Your task to perform on an android device: clear all cookies in the chrome app Image 0: 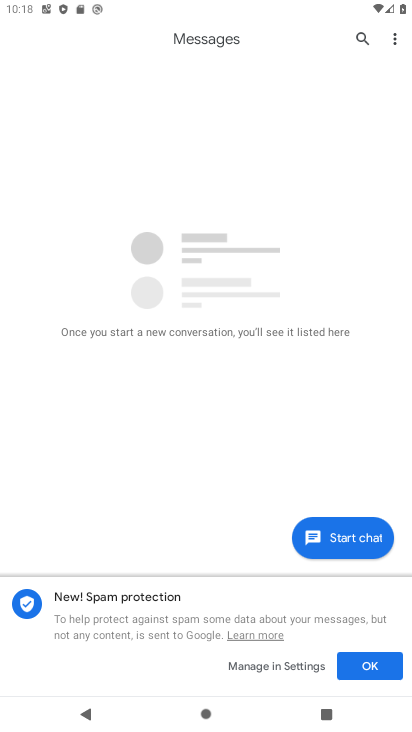
Step 0: press home button
Your task to perform on an android device: clear all cookies in the chrome app Image 1: 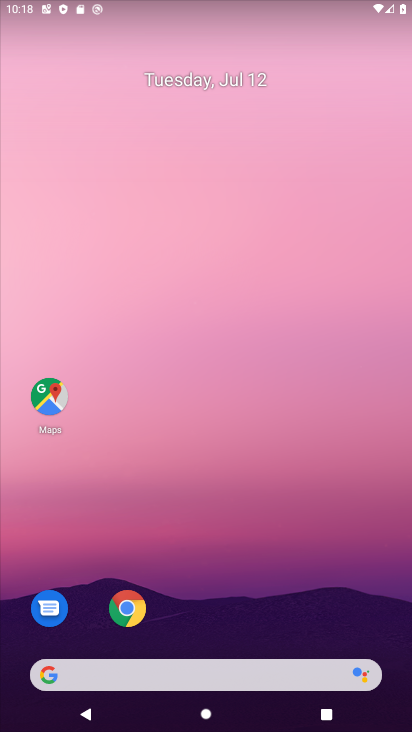
Step 1: click (125, 611)
Your task to perform on an android device: clear all cookies in the chrome app Image 2: 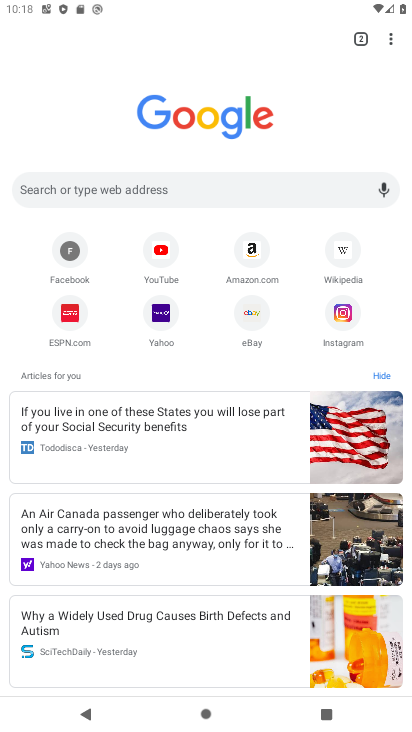
Step 2: click (392, 37)
Your task to perform on an android device: clear all cookies in the chrome app Image 3: 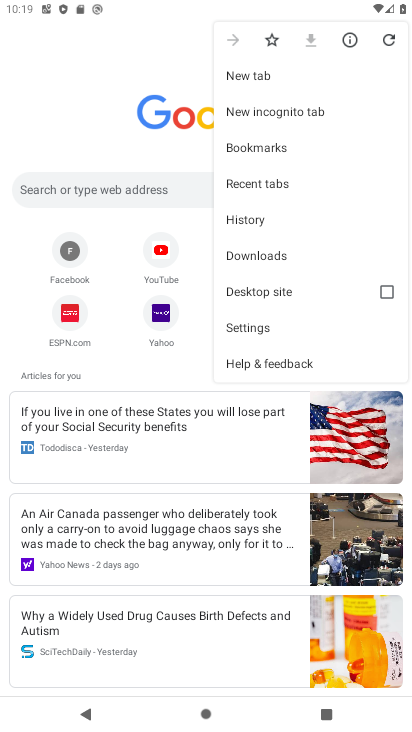
Step 3: click (248, 227)
Your task to perform on an android device: clear all cookies in the chrome app Image 4: 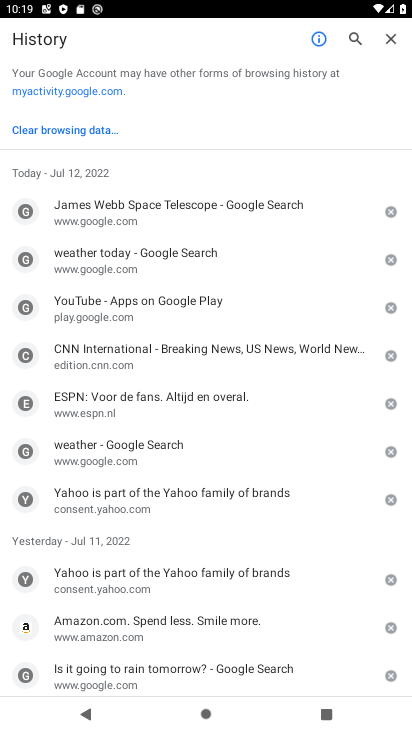
Step 4: click (45, 128)
Your task to perform on an android device: clear all cookies in the chrome app Image 5: 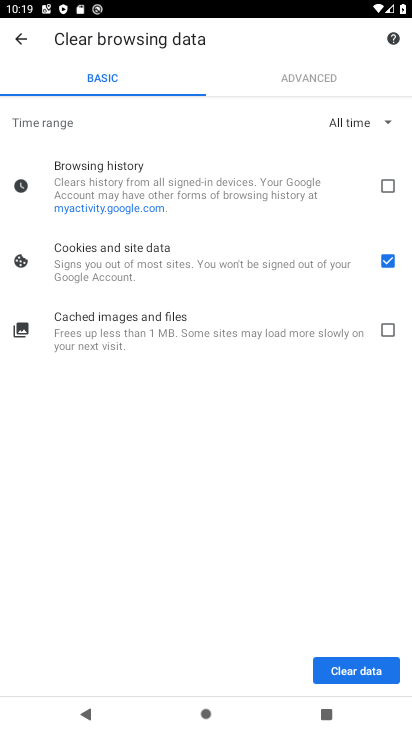
Step 5: click (387, 336)
Your task to perform on an android device: clear all cookies in the chrome app Image 6: 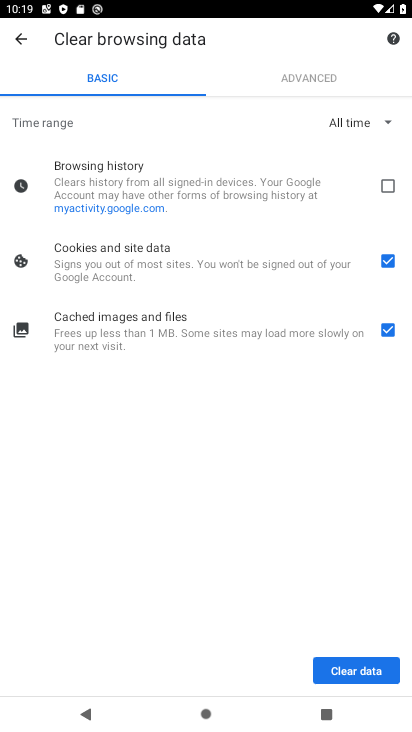
Step 6: click (392, 184)
Your task to perform on an android device: clear all cookies in the chrome app Image 7: 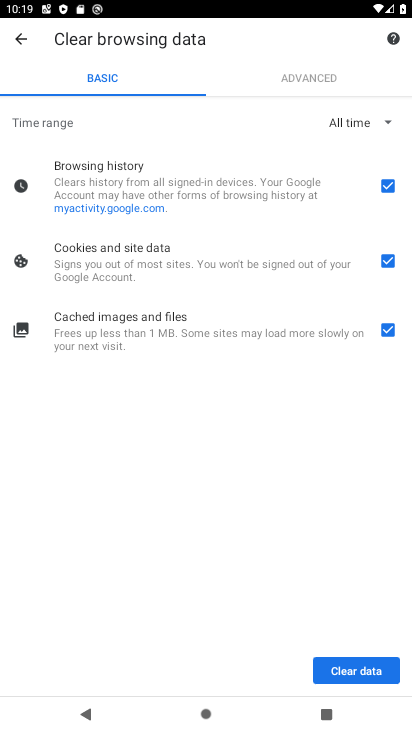
Step 7: click (352, 669)
Your task to perform on an android device: clear all cookies in the chrome app Image 8: 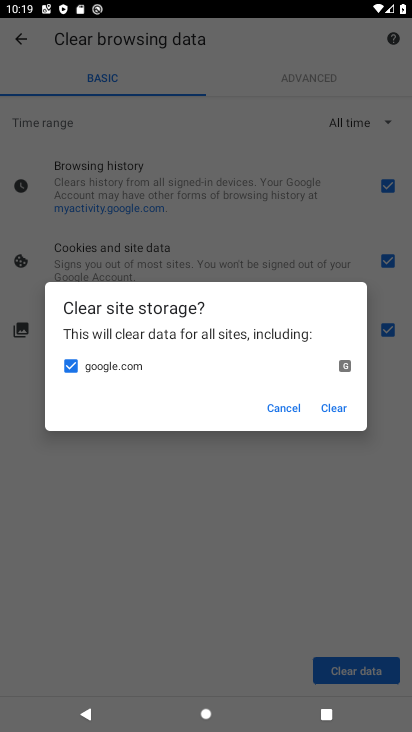
Step 8: click (338, 407)
Your task to perform on an android device: clear all cookies in the chrome app Image 9: 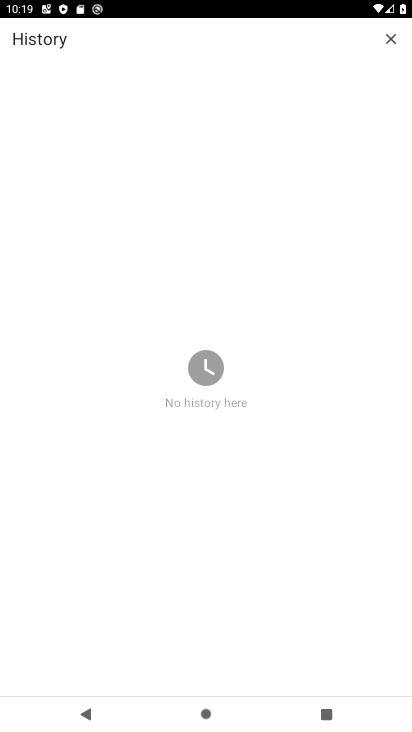
Step 9: task complete